Your task to perform on an android device: Open the Play Movies app and select the watchlist tab. Image 0: 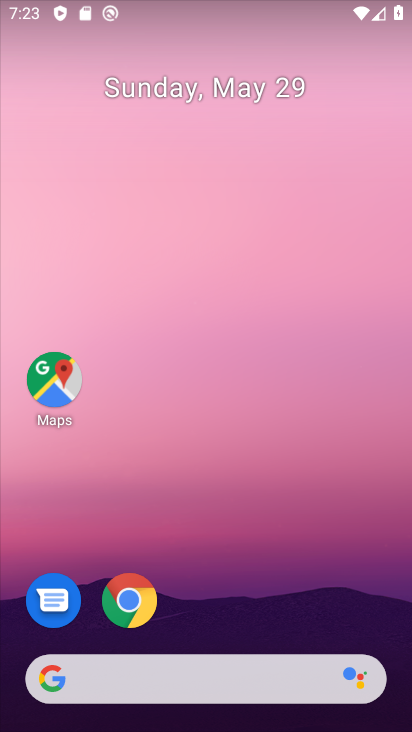
Step 0: drag from (229, 629) to (254, 309)
Your task to perform on an android device: Open the Play Movies app and select the watchlist tab. Image 1: 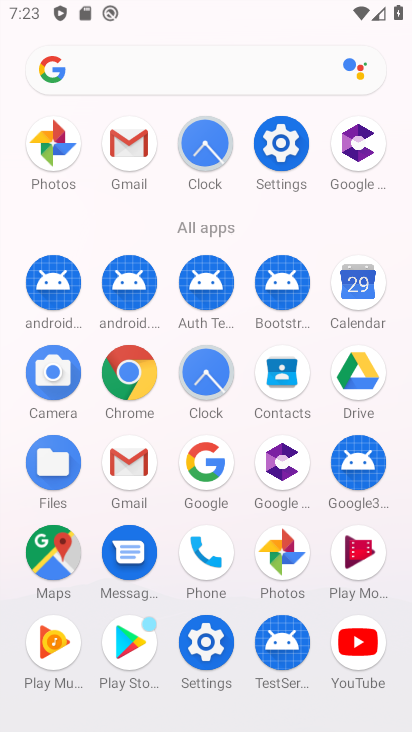
Step 1: click (364, 578)
Your task to perform on an android device: Open the Play Movies app and select the watchlist tab. Image 2: 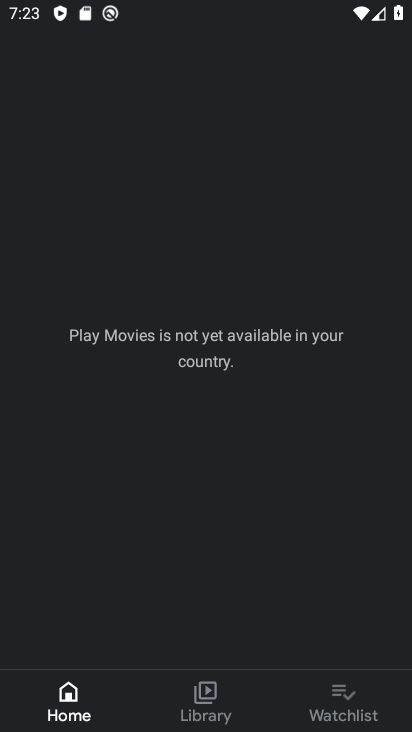
Step 2: click (342, 695)
Your task to perform on an android device: Open the Play Movies app and select the watchlist tab. Image 3: 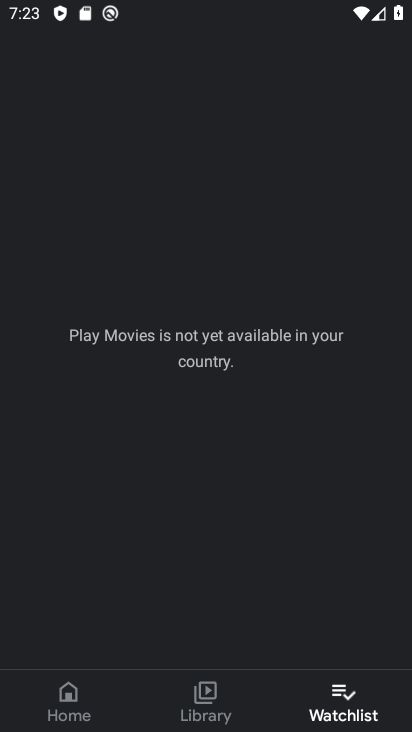
Step 3: task complete